Your task to perform on an android device: Open my contact list Image 0: 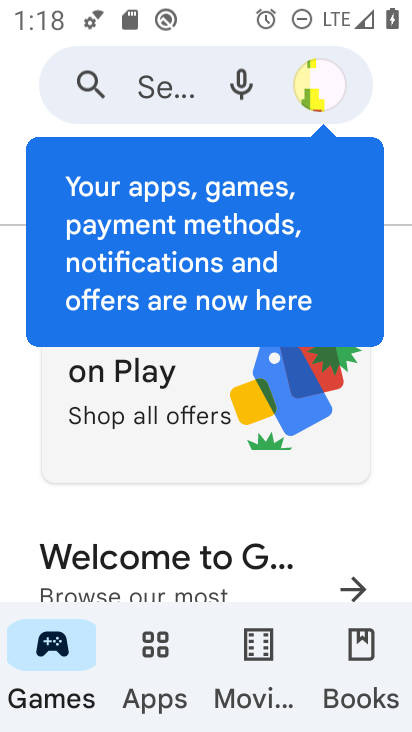
Step 0: press home button
Your task to perform on an android device: Open my contact list Image 1: 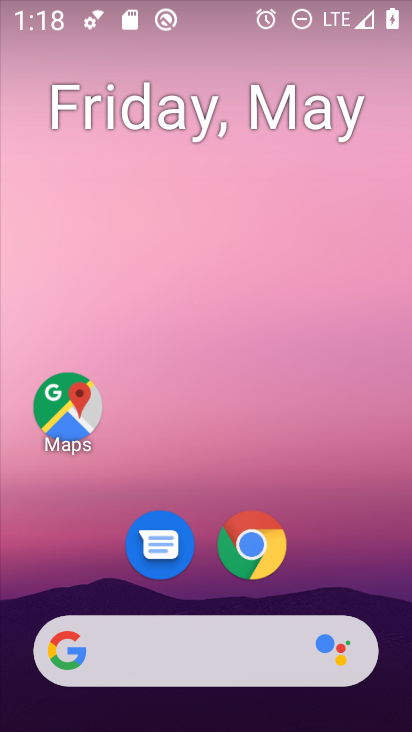
Step 1: drag from (326, 577) to (320, 258)
Your task to perform on an android device: Open my contact list Image 2: 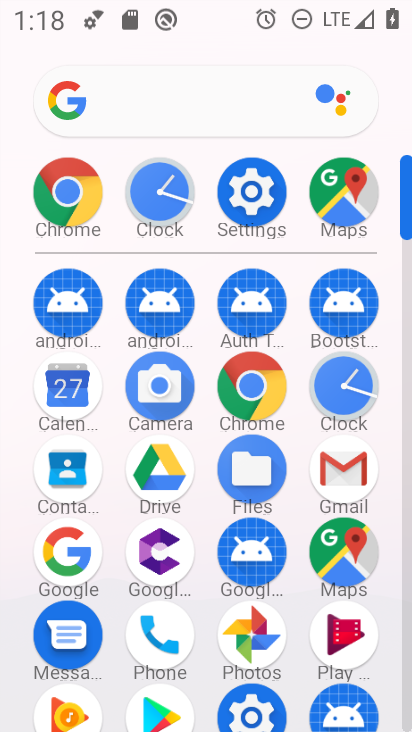
Step 2: click (155, 619)
Your task to perform on an android device: Open my contact list Image 3: 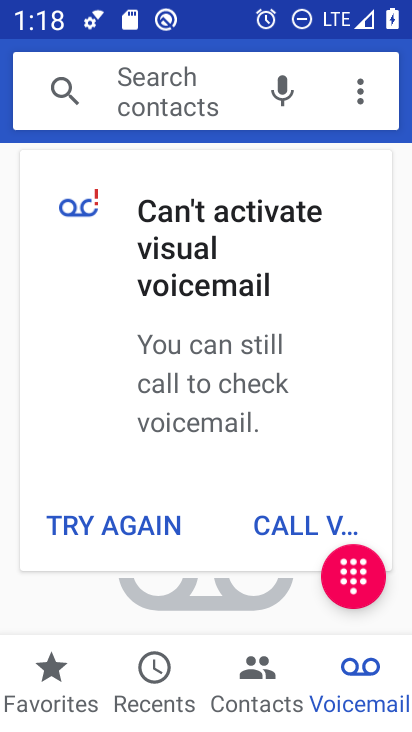
Step 3: click (263, 673)
Your task to perform on an android device: Open my contact list Image 4: 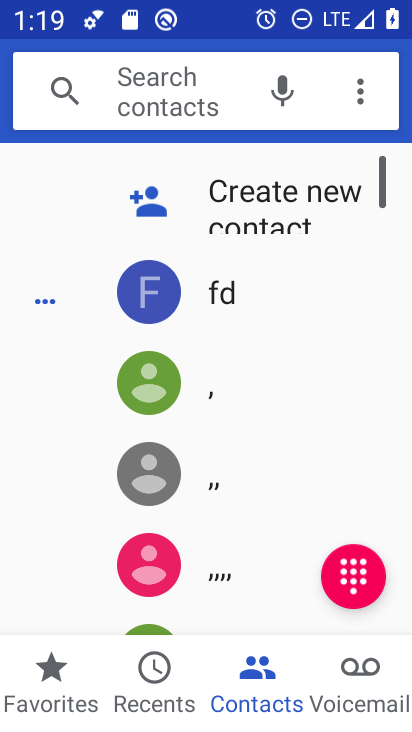
Step 4: task complete